Your task to perform on an android device: toggle priority inbox in the gmail app Image 0: 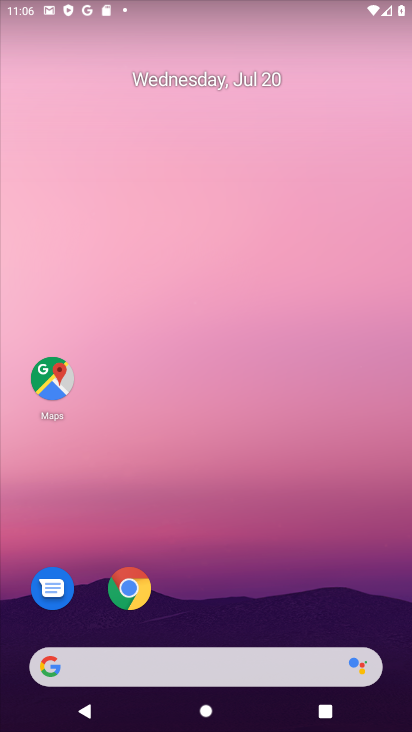
Step 0: click (380, 698)
Your task to perform on an android device: toggle priority inbox in the gmail app Image 1: 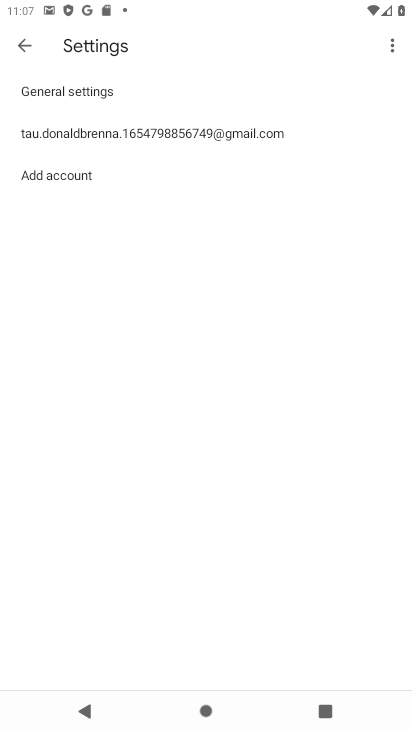
Step 1: drag from (172, 610) to (256, 217)
Your task to perform on an android device: toggle priority inbox in the gmail app Image 2: 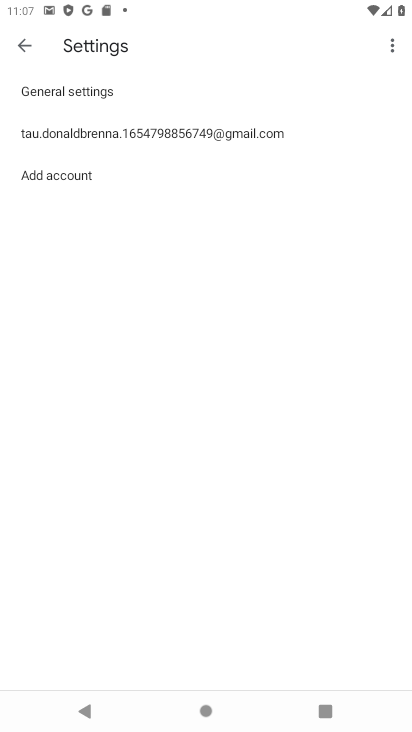
Step 2: drag from (211, 350) to (253, 155)
Your task to perform on an android device: toggle priority inbox in the gmail app Image 3: 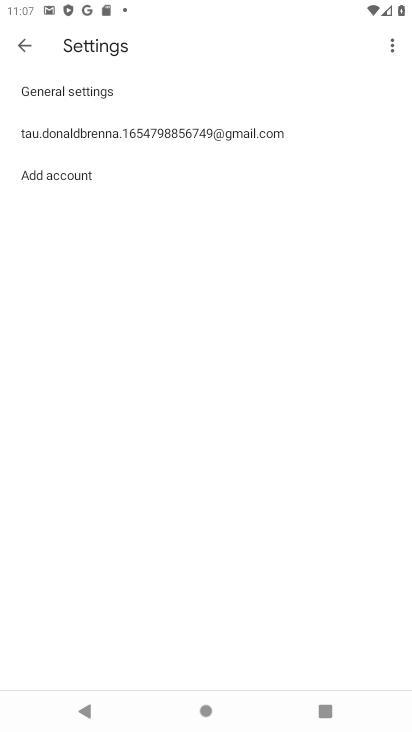
Step 3: click (149, 129)
Your task to perform on an android device: toggle priority inbox in the gmail app Image 4: 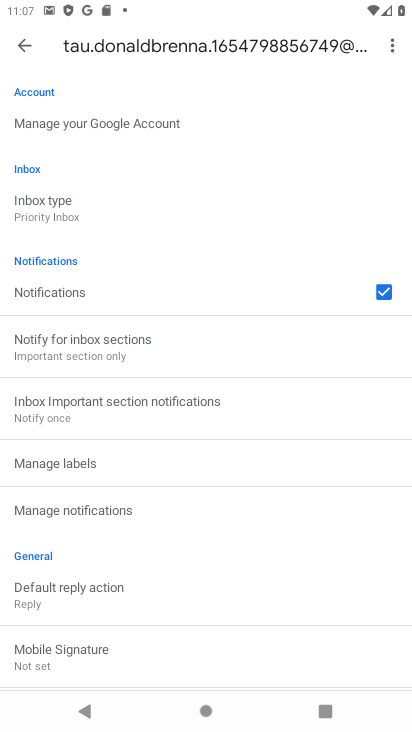
Step 4: click (82, 203)
Your task to perform on an android device: toggle priority inbox in the gmail app Image 5: 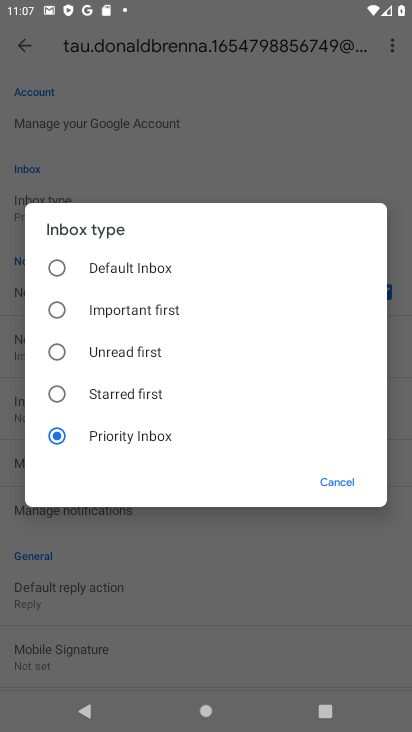
Step 5: click (93, 261)
Your task to perform on an android device: toggle priority inbox in the gmail app Image 6: 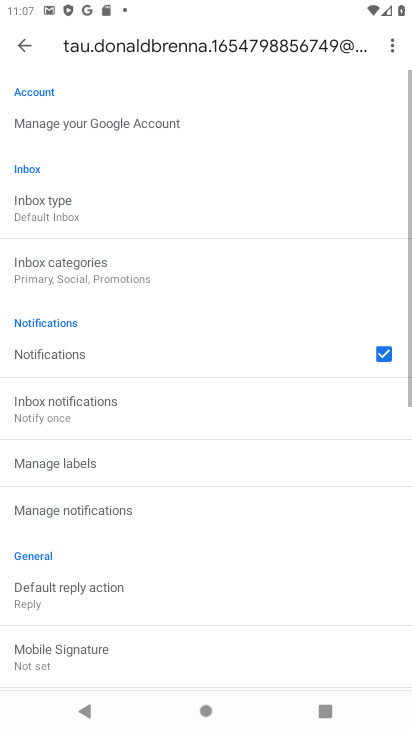
Step 6: task complete